Your task to perform on an android device: Clear the cart on target. Search for bose quietcomfort 35 on target, select the first entry, and add it to the cart. Image 0: 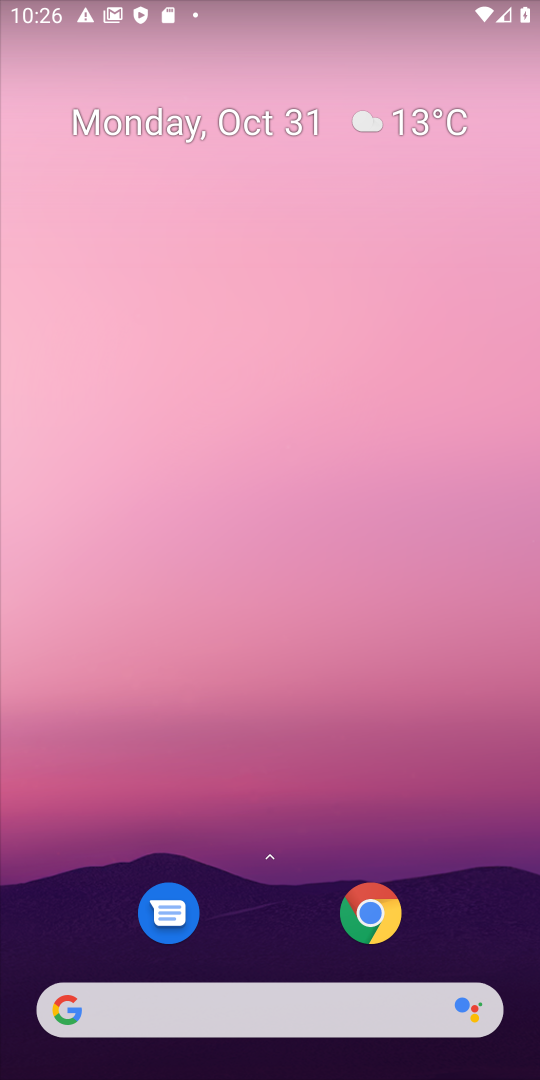
Step 0: click (280, 1015)
Your task to perform on an android device: Clear the cart on target. Search for bose quietcomfort 35 on target, select the first entry, and add it to the cart. Image 1: 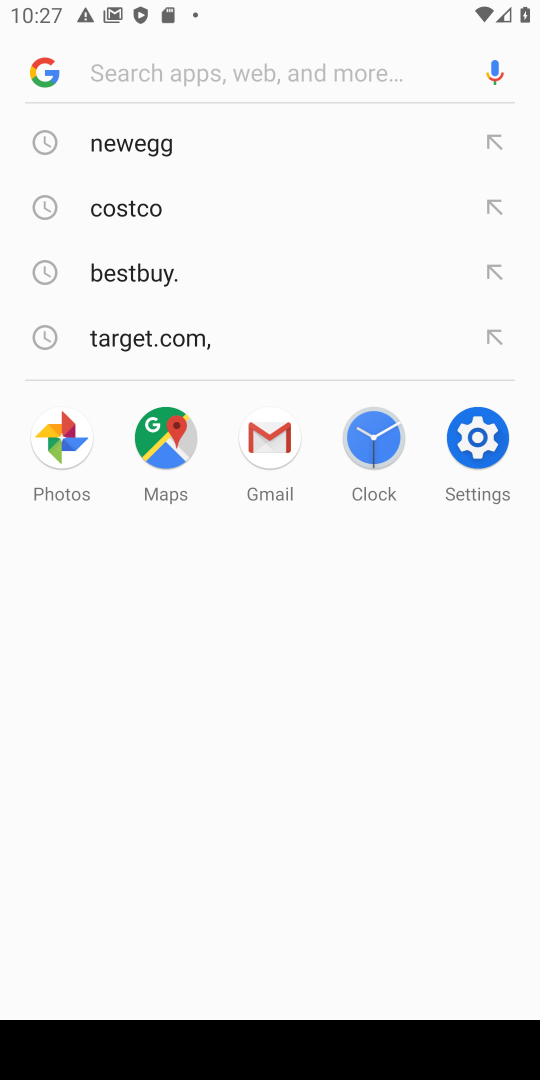
Step 1: type "target"
Your task to perform on an android device: Clear the cart on target. Search for bose quietcomfort 35 on target, select the first entry, and add it to the cart. Image 2: 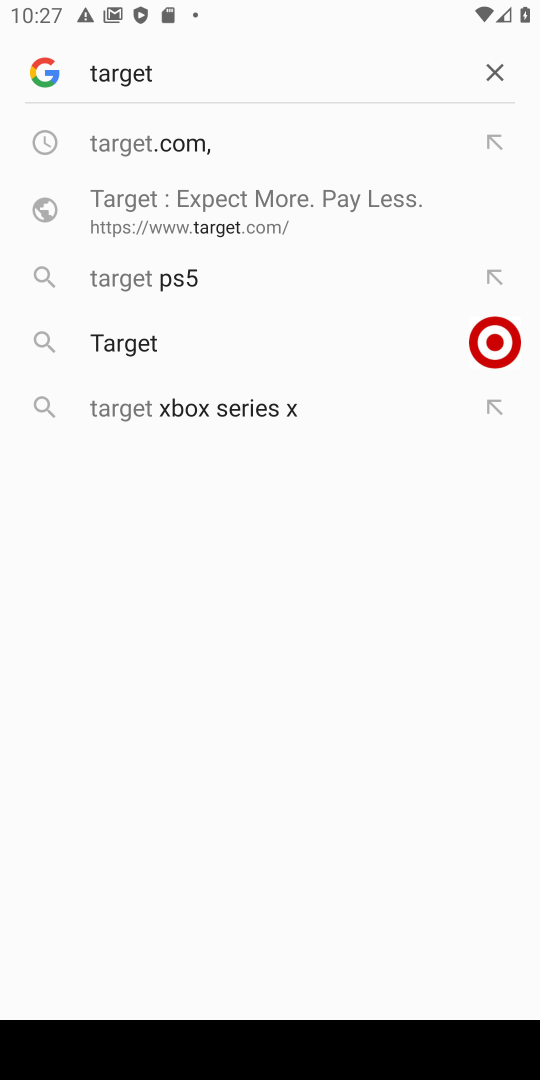
Step 2: click (197, 249)
Your task to perform on an android device: Clear the cart on target. Search for bose quietcomfort 35 on target, select the first entry, and add it to the cart. Image 3: 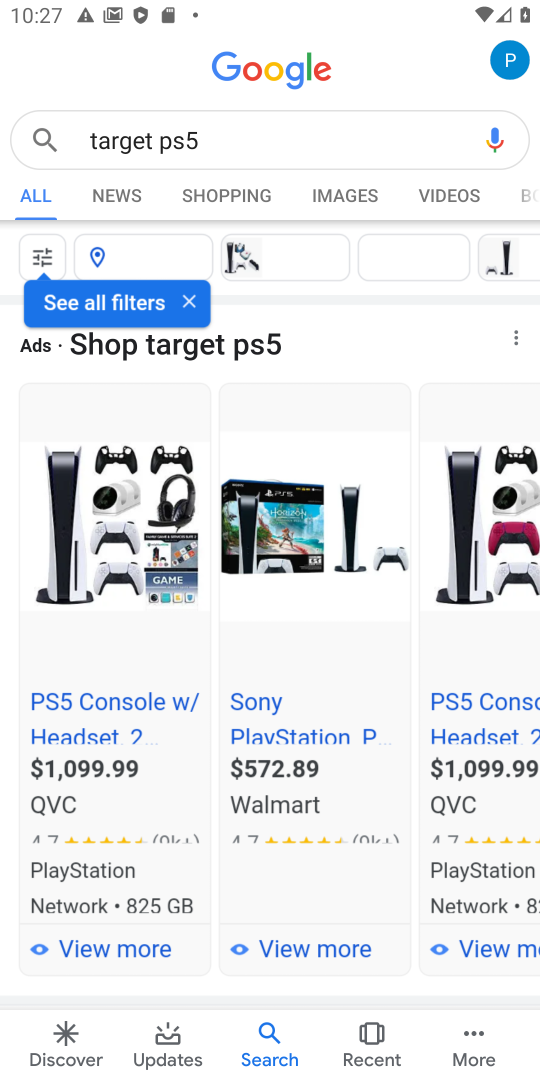
Step 3: click (186, 305)
Your task to perform on an android device: Clear the cart on target. Search for bose quietcomfort 35 on target, select the first entry, and add it to the cart. Image 4: 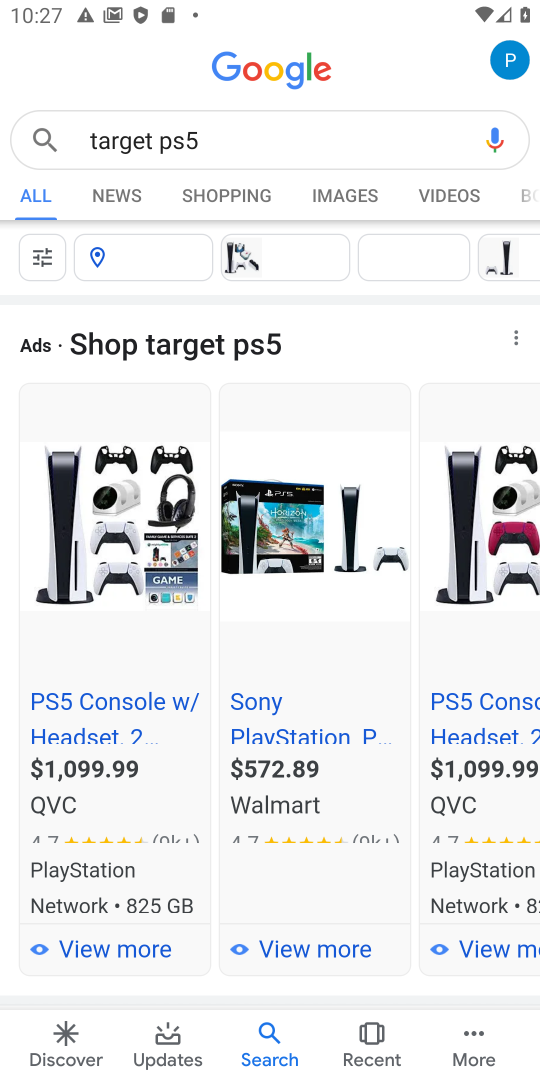
Step 4: drag from (225, 870) to (278, 141)
Your task to perform on an android device: Clear the cart on target. Search for bose quietcomfort 35 on target, select the first entry, and add it to the cart. Image 5: 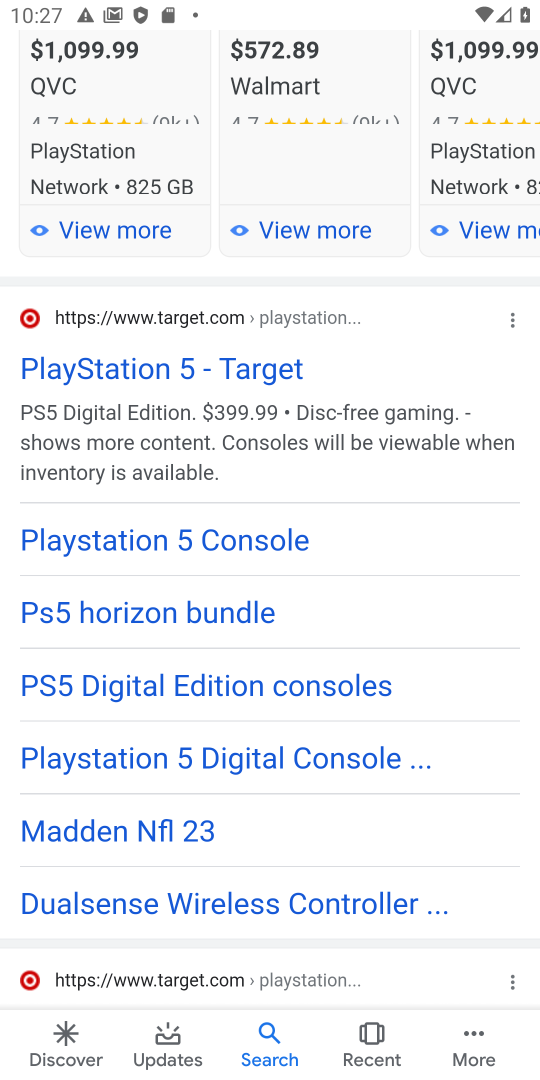
Step 5: click (211, 385)
Your task to perform on an android device: Clear the cart on target. Search for bose quietcomfort 35 on target, select the first entry, and add it to the cart. Image 6: 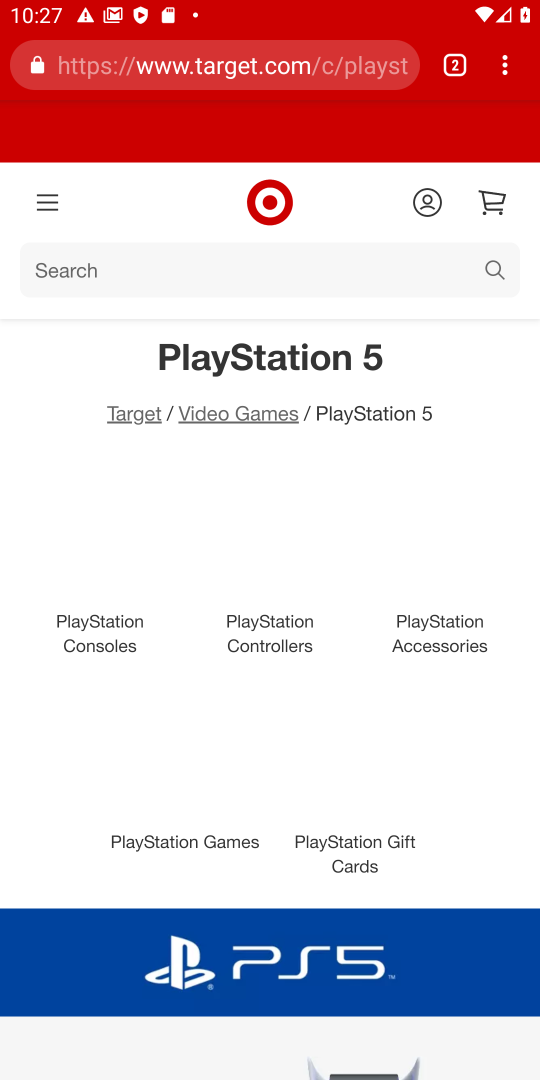
Step 6: click (387, 271)
Your task to perform on an android device: Clear the cart on target. Search for bose quietcomfort 35 on target, select the first entry, and add it to the cart. Image 7: 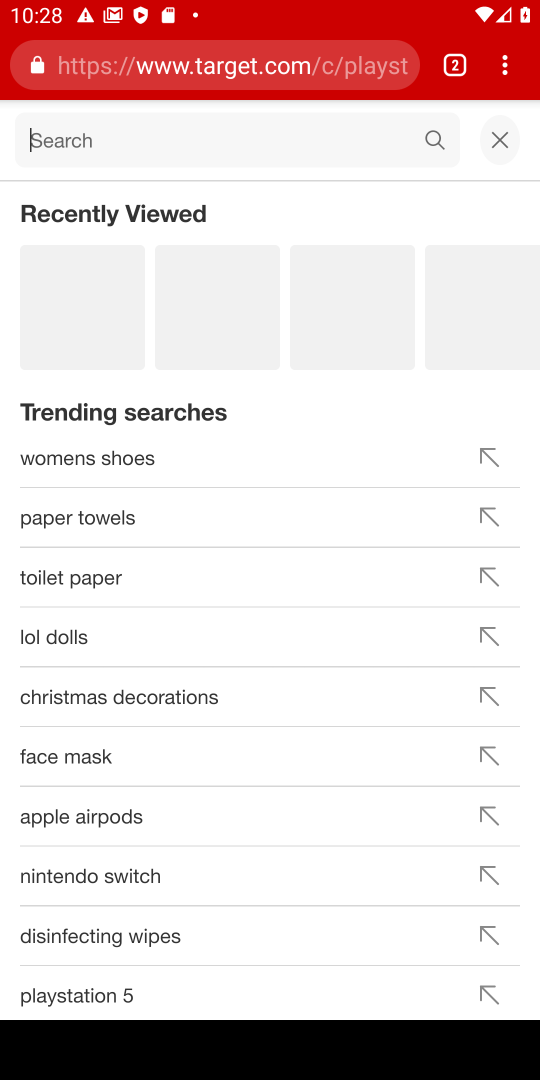
Step 7: type "quietcomfort 35"
Your task to perform on an android device: Clear the cart on target. Search for bose quietcomfort 35 on target, select the first entry, and add it to the cart. Image 8: 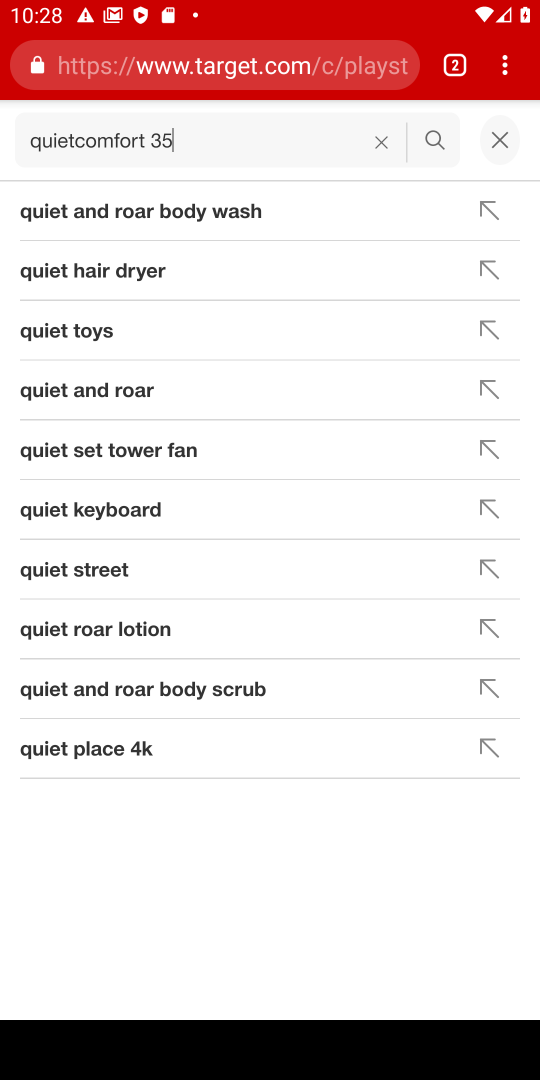
Step 8: click (175, 252)
Your task to perform on an android device: Clear the cart on target. Search for bose quietcomfort 35 on target, select the first entry, and add it to the cart. Image 9: 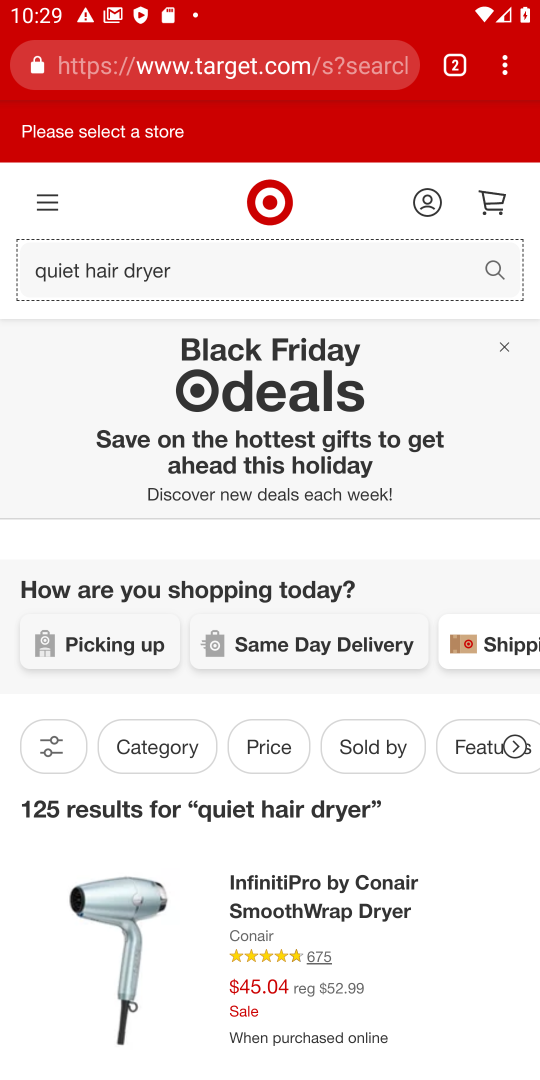
Step 9: task complete